Your task to perform on an android device: Open Google Maps Image 0: 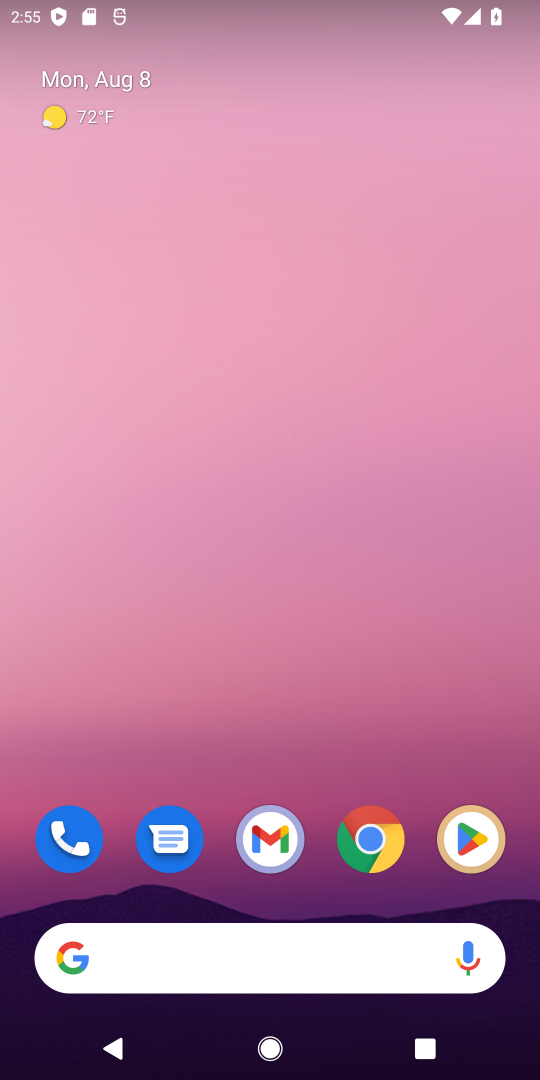
Step 0: press home button
Your task to perform on an android device: Open Google Maps Image 1: 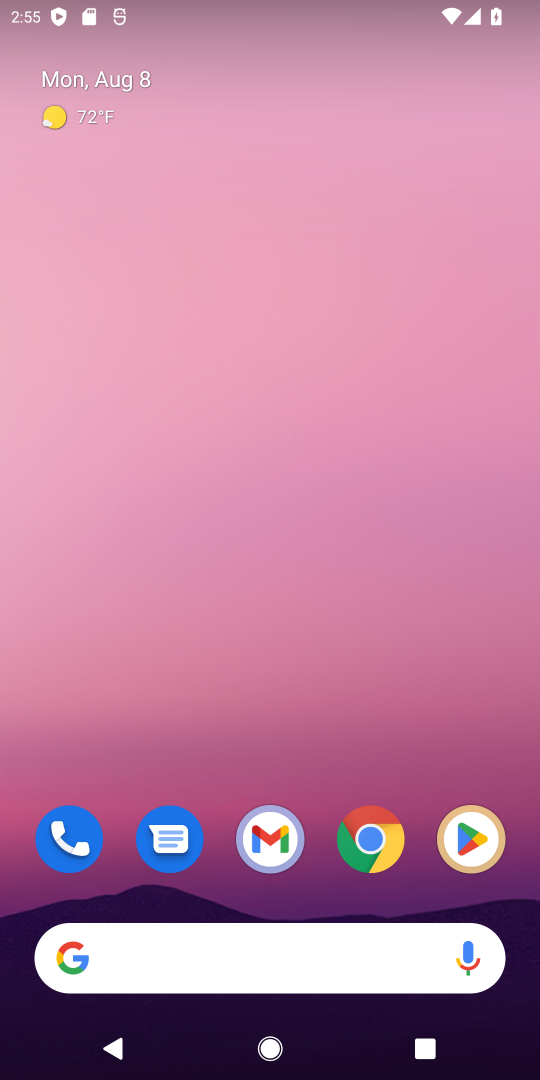
Step 1: drag from (415, 741) to (421, 189)
Your task to perform on an android device: Open Google Maps Image 2: 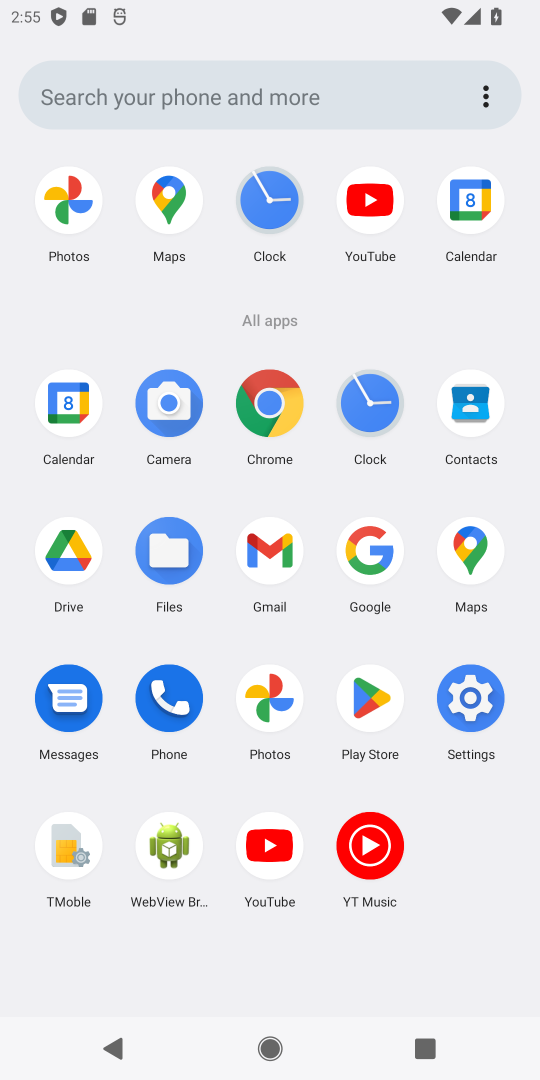
Step 2: click (467, 560)
Your task to perform on an android device: Open Google Maps Image 3: 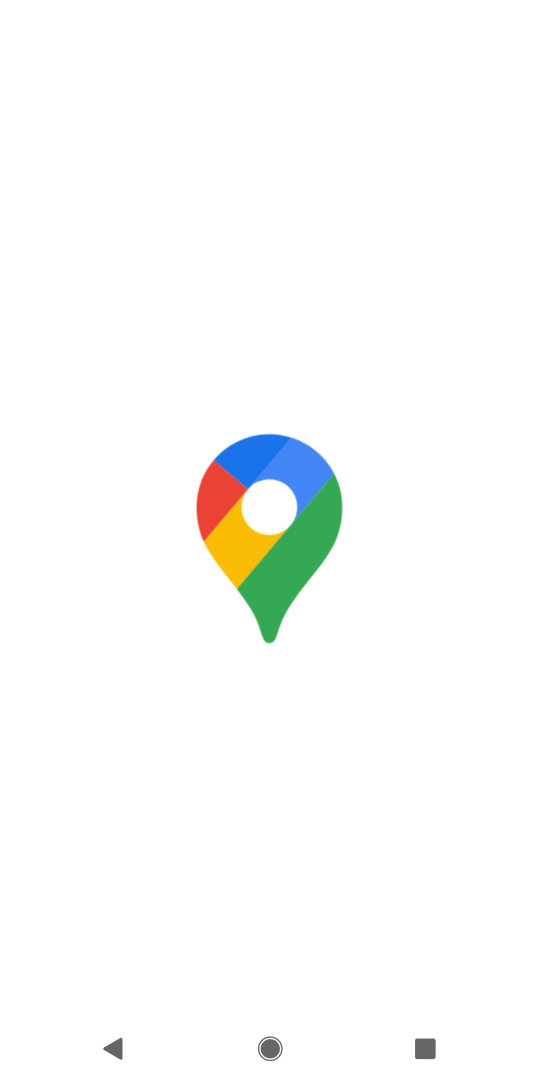
Step 3: task complete